Your task to perform on an android device: Go to sound settings Image 0: 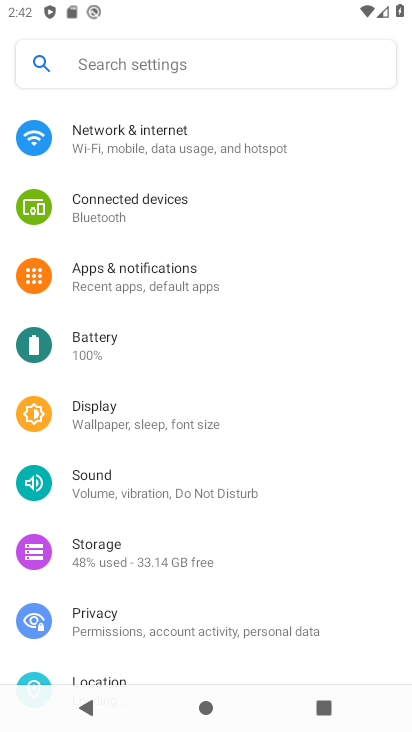
Step 0: press back button
Your task to perform on an android device: Go to sound settings Image 1: 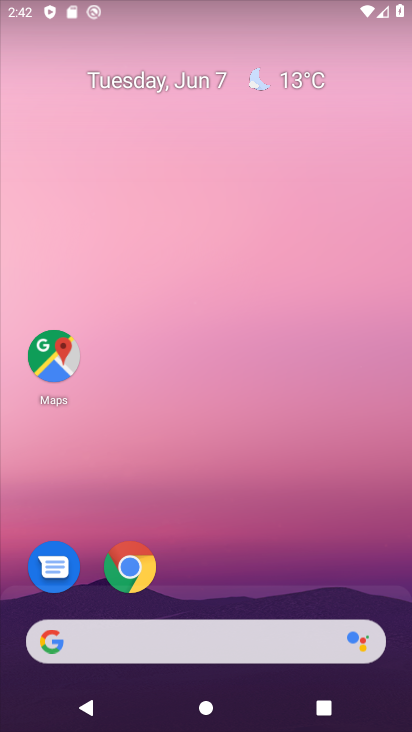
Step 1: drag from (221, 562) to (252, 78)
Your task to perform on an android device: Go to sound settings Image 2: 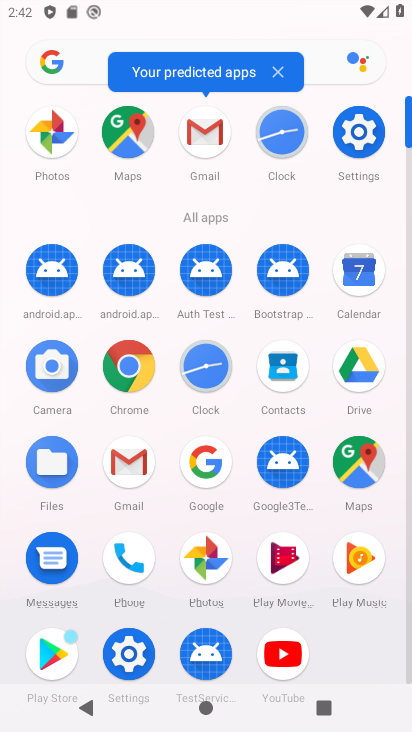
Step 2: click (350, 131)
Your task to perform on an android device: Go to sound settings Image 3: 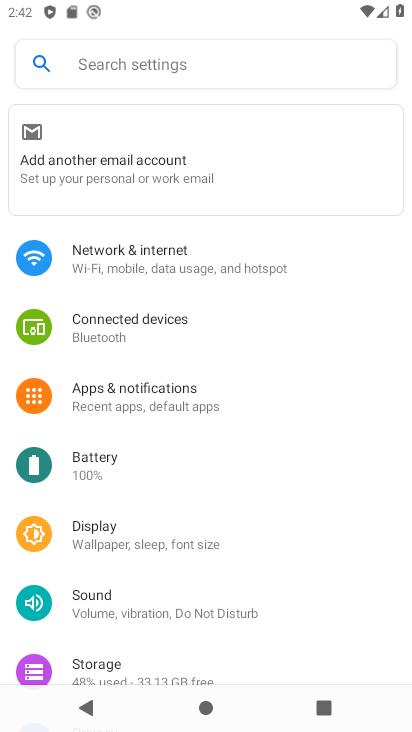
Step 3: click (105, 608)
Your task to perform on an android device: Go to sound settings Image 4: 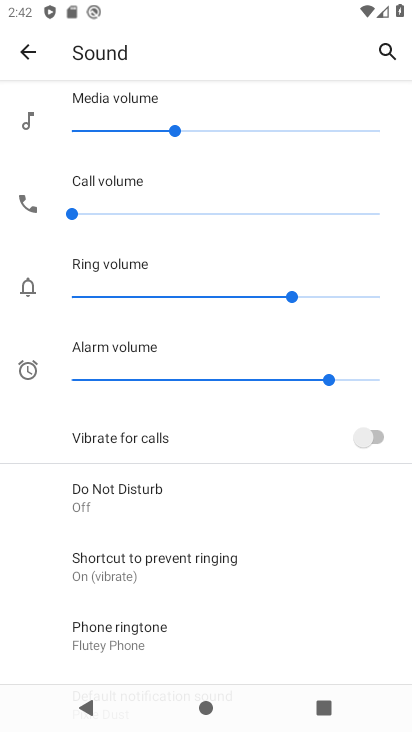
Step 4: task complete